Your task to perform on an android device: turn on wifi Image 0: 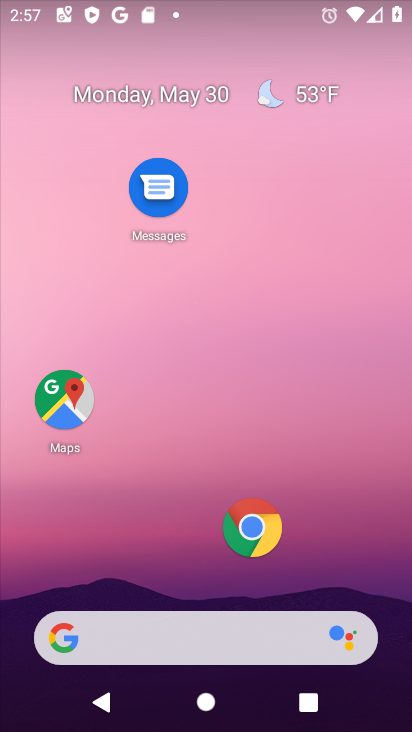
Step 0: drag from (247, 465) to (292, 75)
Your task to perform on an android device: turn on wifi Image 1: 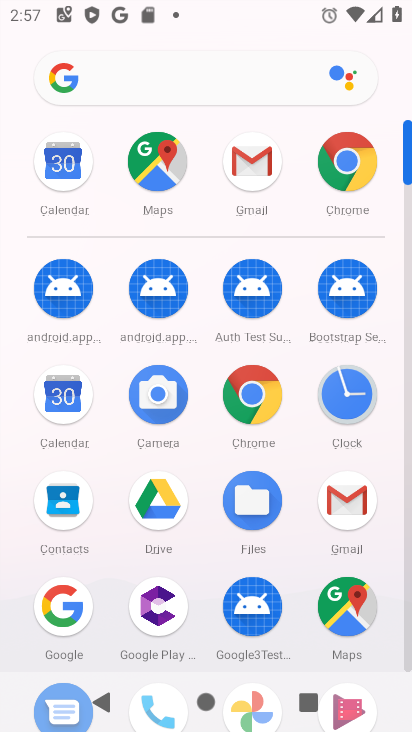
Step 1: drag from (194, 270) to (205, 18)
Your task to perform on an android device: turn on wifi Image 2: 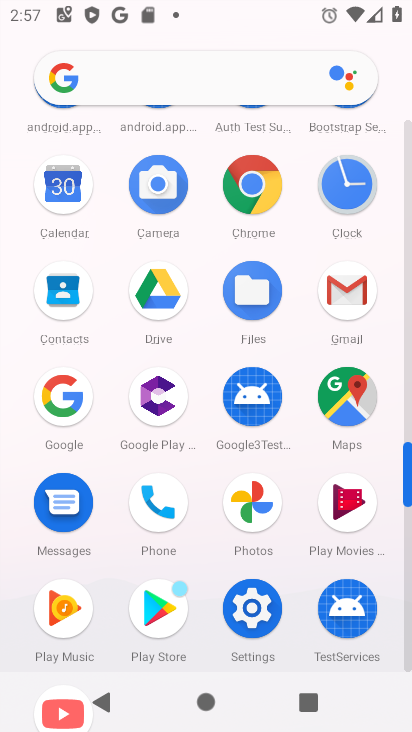
Step 2: click (250, 616)
Your task to perform on an android device: turn on wifi Image 3: 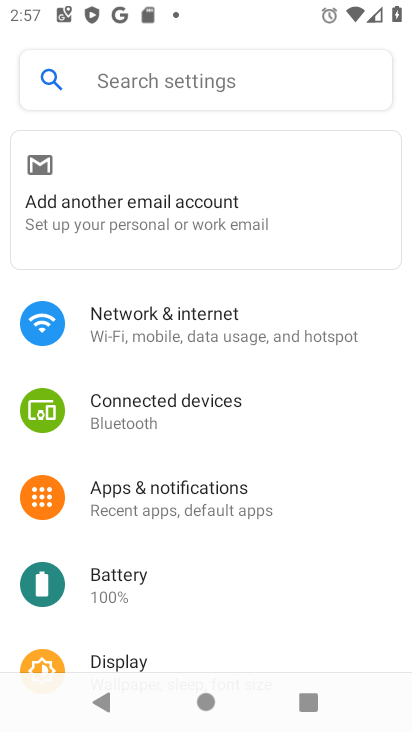
Step 3: click (185, 333)
Your task to perform on an android device: turn on wifi Image 4: 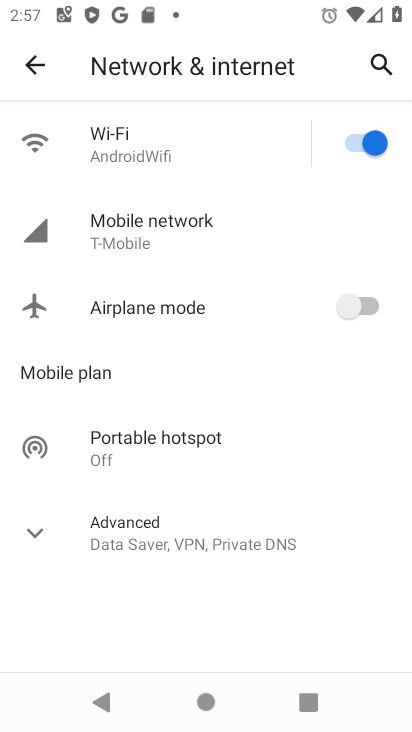
Step 4: task complete